Your task to perform on an android device: toggle translation in the chrome app Image 0: 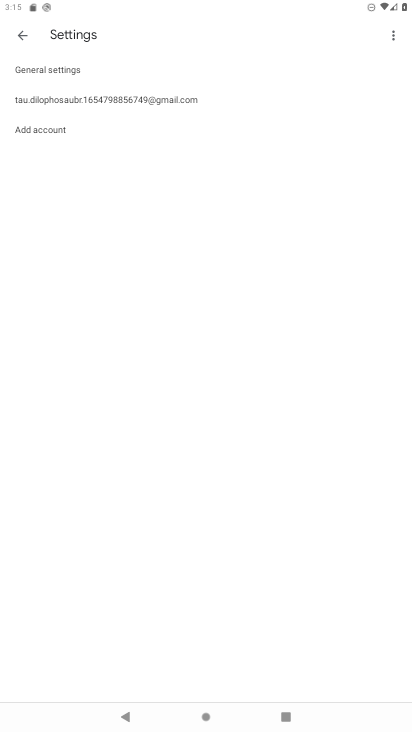
Step 0: press home button
Your task to perform on an android device: toggle translation in the chrome app Image 1: 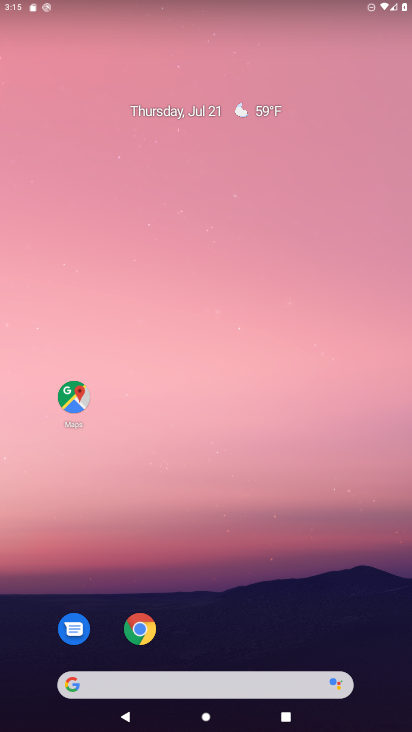
Step 1: drag from (239, 579) to (246, 198)
Your task to perform on an android device: toggle translation in the chrome app Image 2: 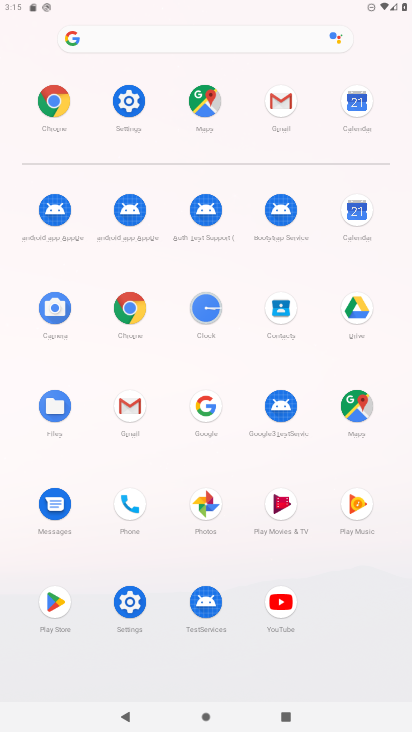
Step 2: click (128, 307)
Your task to perform on an android device: toggle translation in the chrome app Image 3: 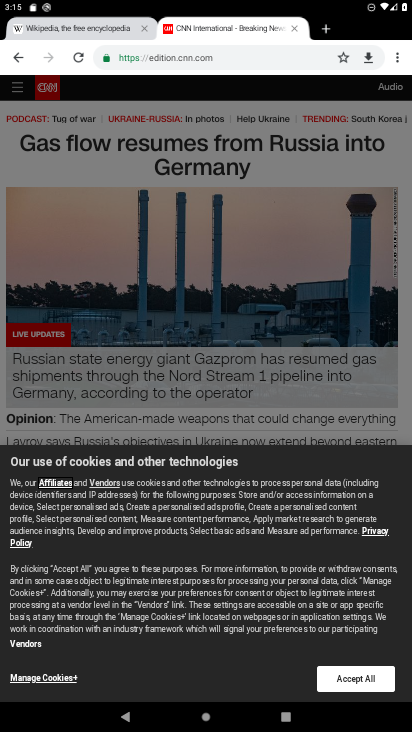
Step 3: click (396, 58)
Your task to perform on an android device: toggle translation in the chrome app Image 4: 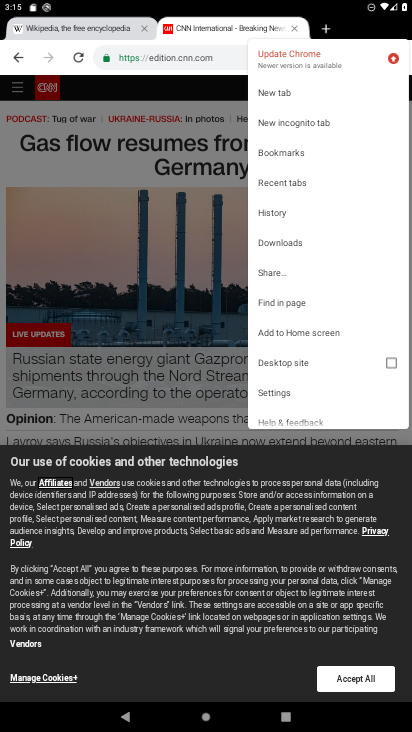
Step 4: click (274, 392)
Your task to perform on an android device: toggle translation in the chrome app Image 5: 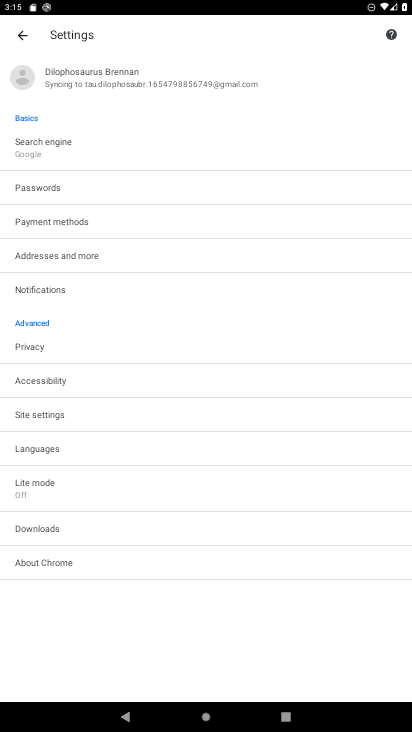
Step 5: click (42, 451)
Your task to perform on an android device: toggle translation in the chrome app Image 6: 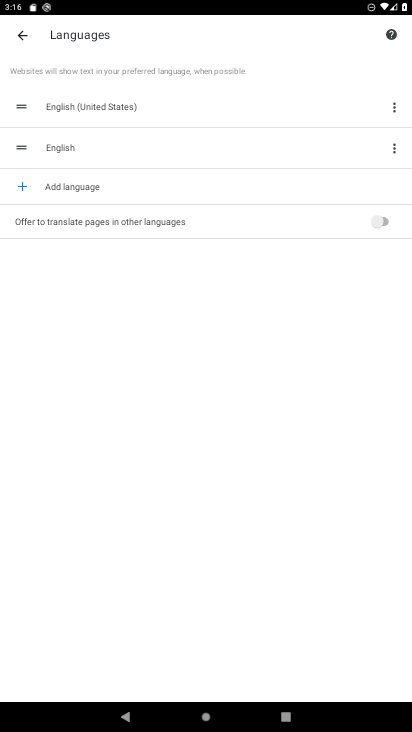
Step 6: click (389, 220)
Your task to perform on an android device: toggle translation in the chrome app Image 7: 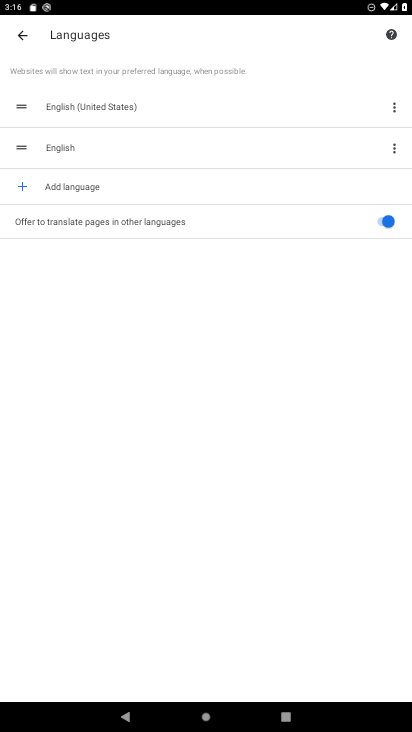
Step 7: task complete